Your task to perform on an android device: Go to calendar. Show me events next week Image 0: 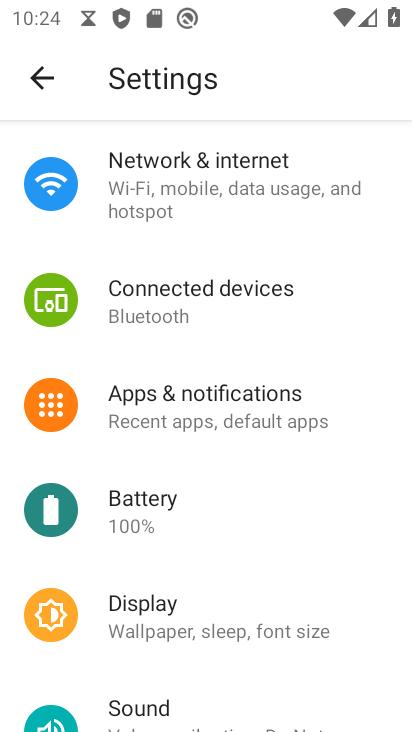
Step 0: press back button
Your task to perform on an android device: Go to calendar. Show me events next week Image 1: 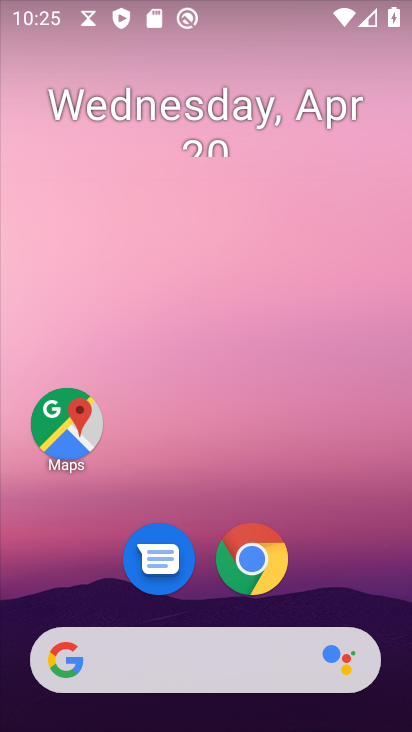
Step 1: drag from (219, 715) to (223, 189)
Your task to perform on an android device: Go to calendar. Show me events next week Image 2: 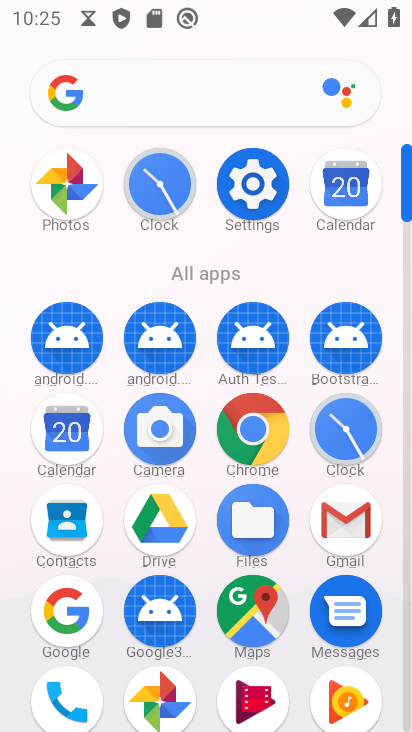
Step 2: click (54, 424)
Your task to perform on an android device: Go to calendar. Show me events next week Image 3: 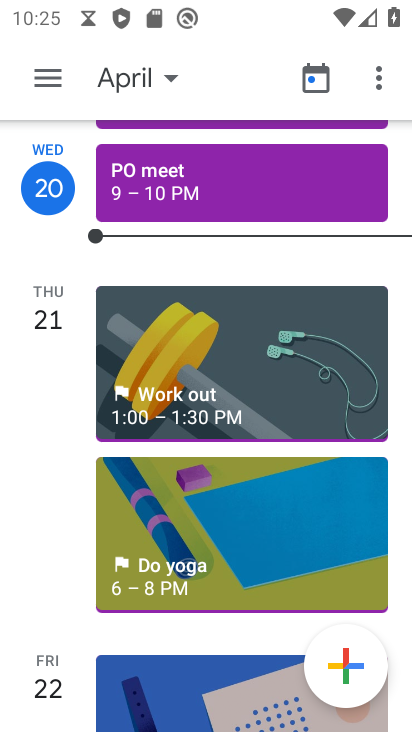
Step 3: click (113, 73)
Your task to perform on an android device: Go to calendar. Show me events next week Image 4: 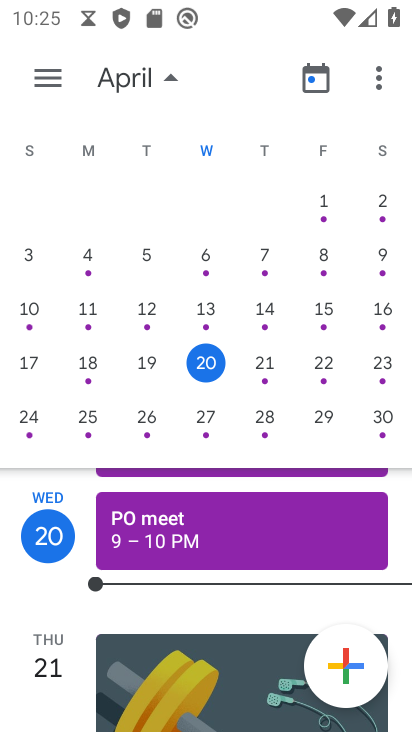
Step 4: click (365, 364)
Your task to perform on an android device: Go to calendar. Show me events next week Image 5: 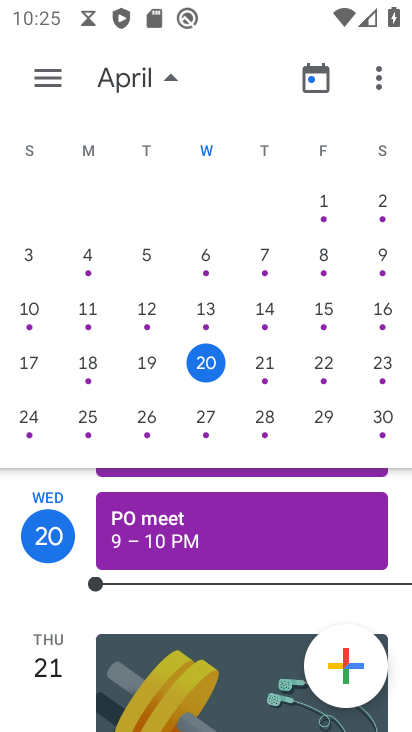
Step 5: click (383, 358)
Your task to perform on an android device: Go to calendar. Show me events next week Image 6: 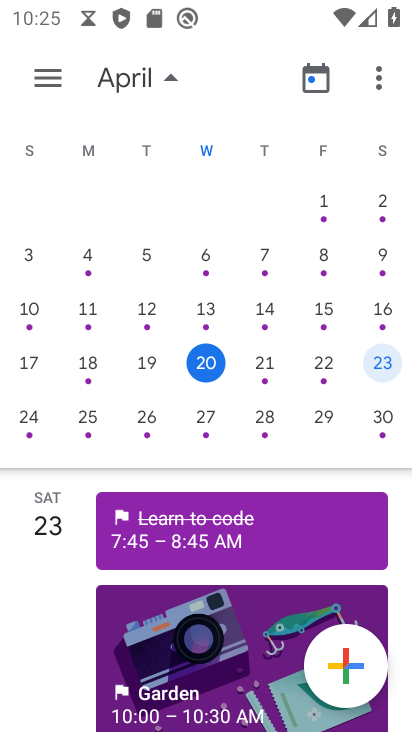
Step 6: click (381, 358)
Your task to perform on an android device: Go to calendar. Show me events next week Image 7: 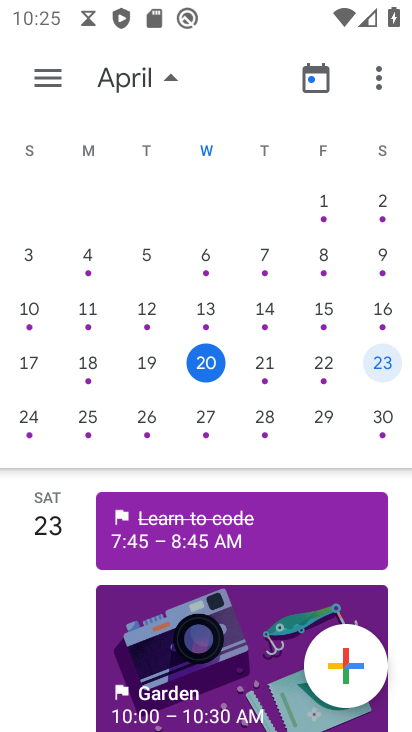
Step 7: click (47, 80)
Your task to perform on an android device: Go to calendar. Show me events next week Image 8: 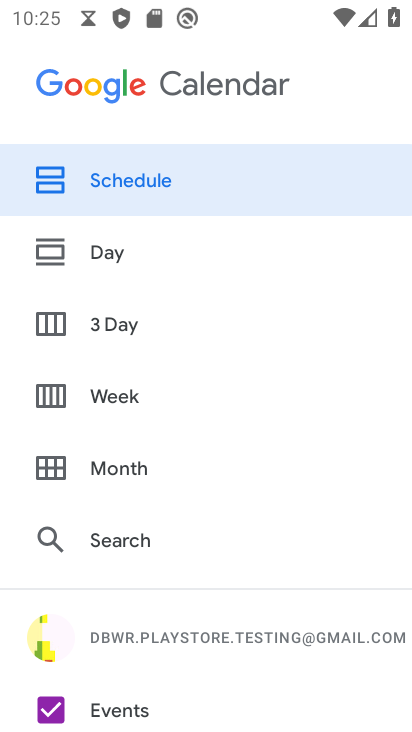
Step 8: click (114, 389)
Your task to perform on an android device: Go to calendar. Show me events next week Image 9: 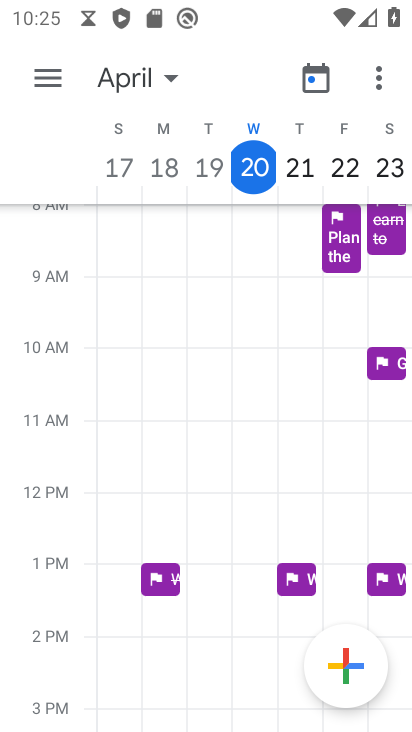
Step 9: click (382, 160)
Your task to perform on an android device: Go to calendar. Show me events next week Image 10: 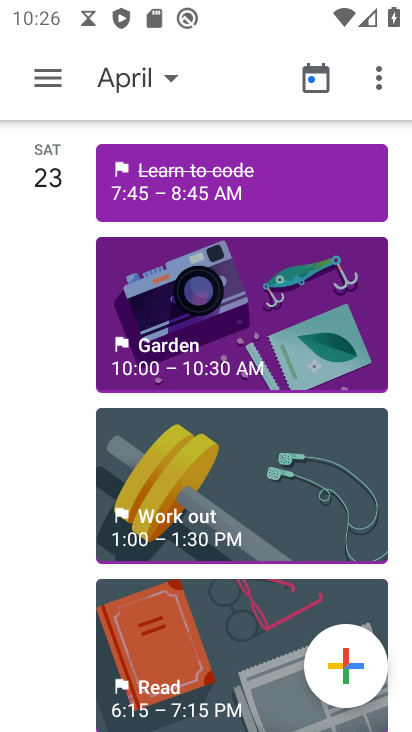
Step 10: task complete